Your task to perform on an android device: open a bookmark in the chrome app Image 0: 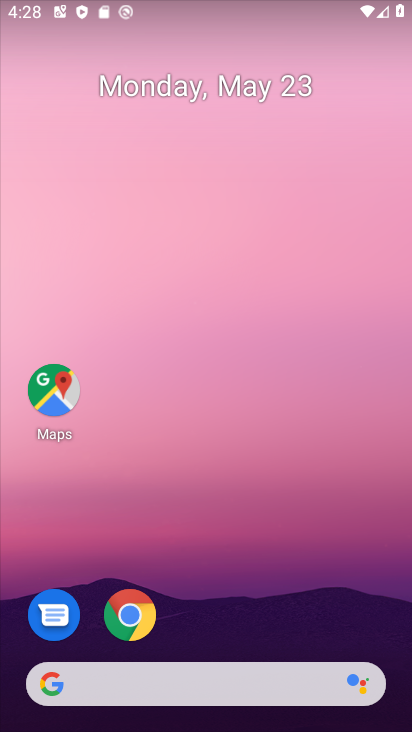
Step 0: click (123, 615)
Your task to perform on an android device: open a bookmark in the chrome app Image 1: 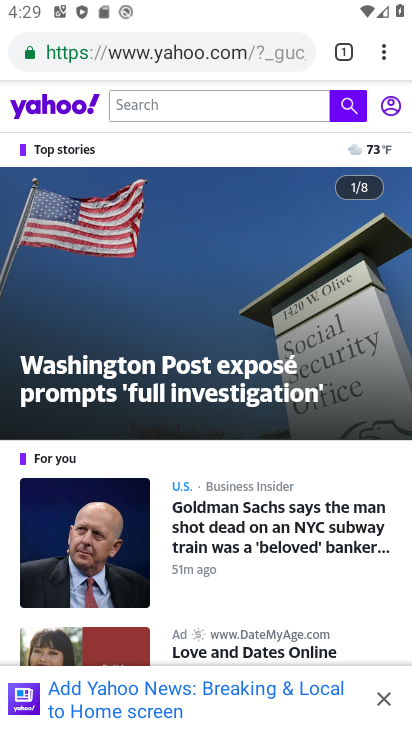
Step 1: task complete